Your task to perform on an android device: see sites visited before in the chrome app Image 0: 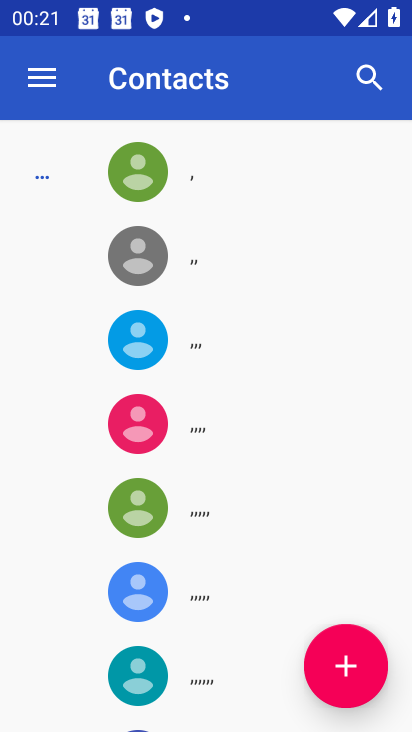
Step 0: press home button
Your task to perform on an android device: see sites visited before in the chrome app Image 1: 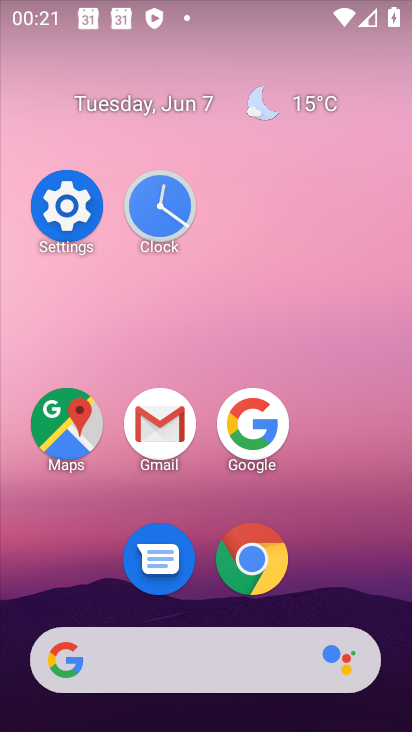
Step 1: click (269, 553)
Your task to perform on an android device: see sites visited before in the chrome app Image 2: 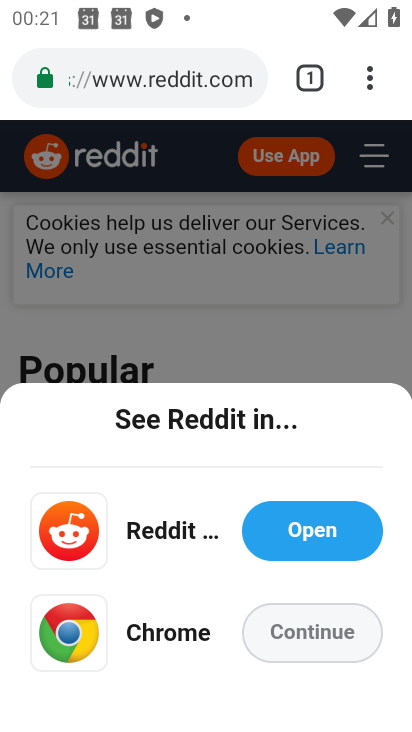
Step 2: click (361, 65)
Your task to perform on an android device: see sites visited before in the chrome app Image 3: 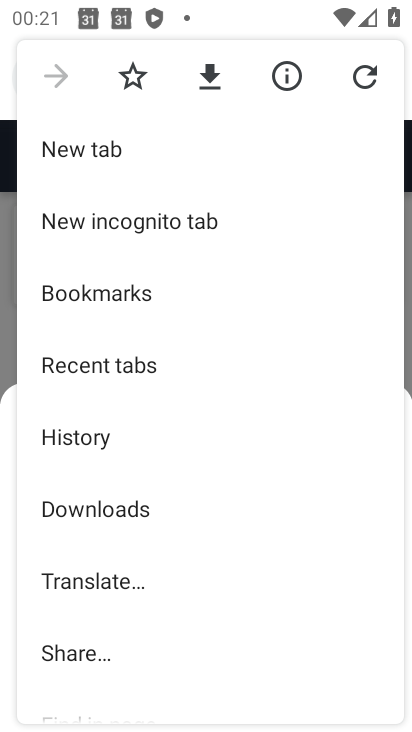
Step 3: click (205, 353)
Your task to perform on an android device: see sites visited before in the chrome app Image 4: 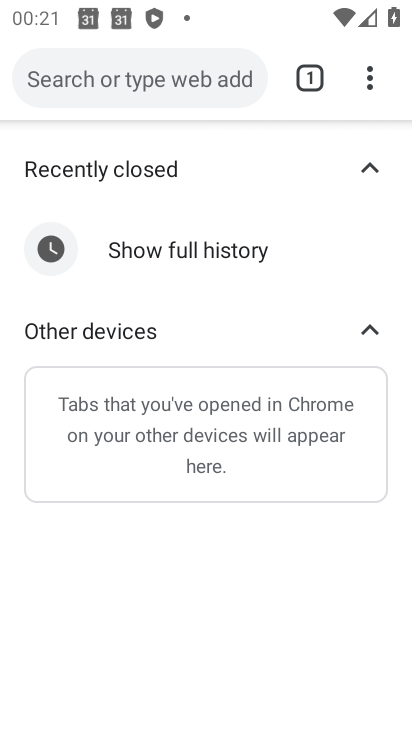
Step 4: click (147, 231)
Your task to perform on an android device: see sites visited before in the chrome app Image 5: 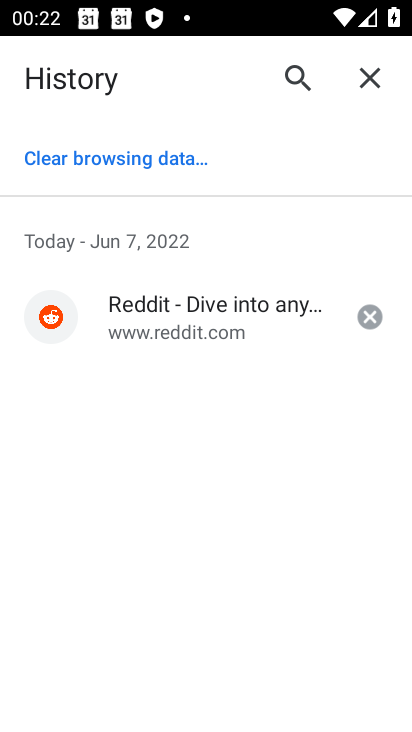
Step 5: task complete